Your task to perform on an android device: Open Amazon Image 0: 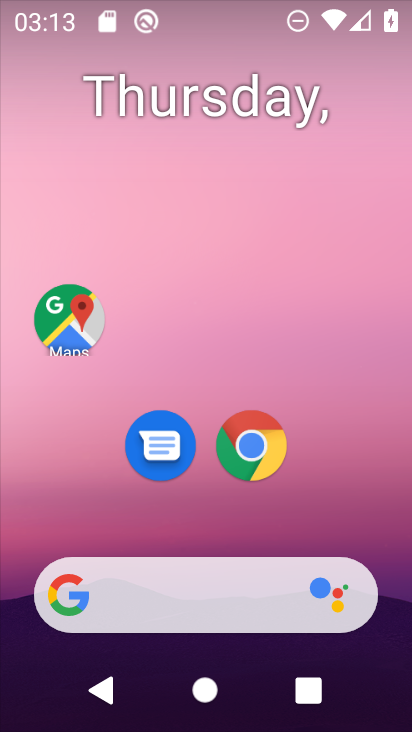
Step 0: click (256, 449)
Your task to perform on an android device: Open Amazon Image 1: 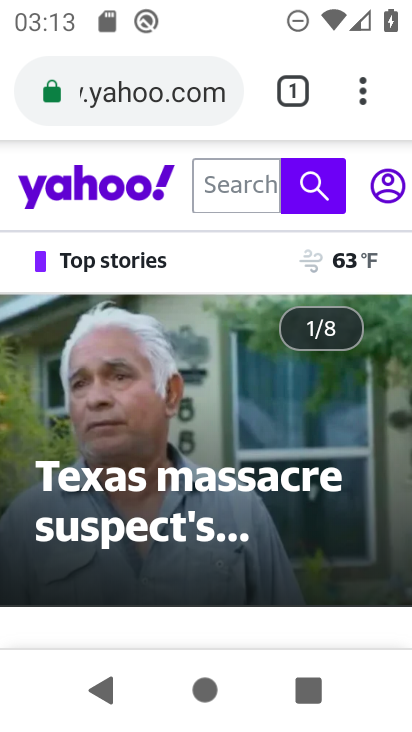
Step 1: click (129, 93)
Your task to perform on an android device: Open Amazon Image 2: 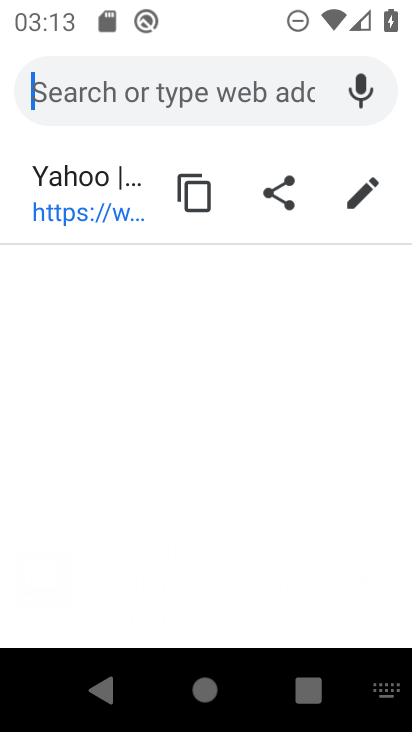
Step 2: type "amazon"
Your task to perform on an android device: Open Amazon Image 3: 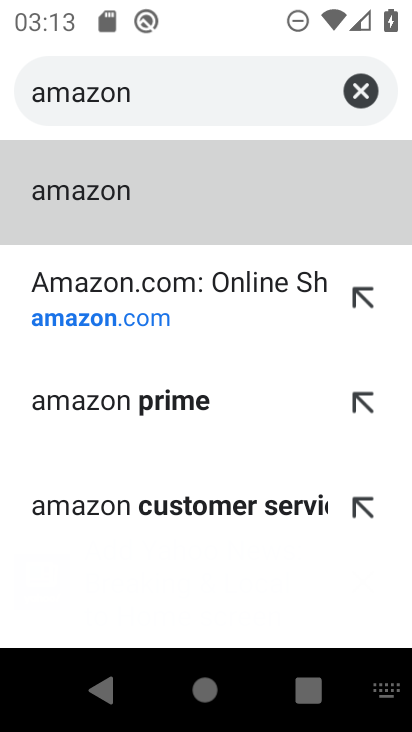
Step 3: click (107, 198)
Your task to perform on an android device: Open Amazon Image 4: 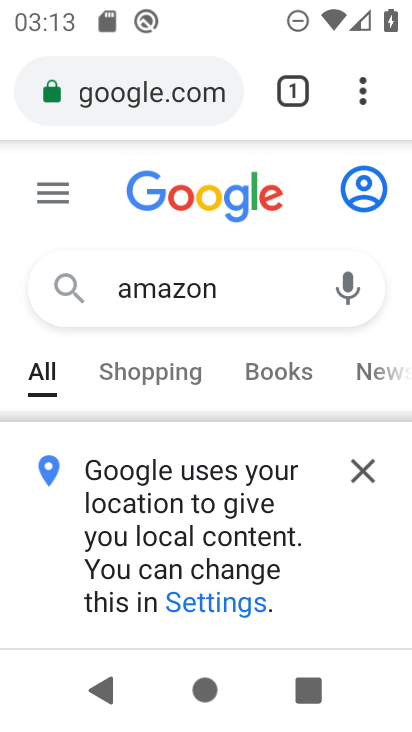
Step 4: click (356, 467)
Your task to perform on an android device: Open Amazon Image 5: 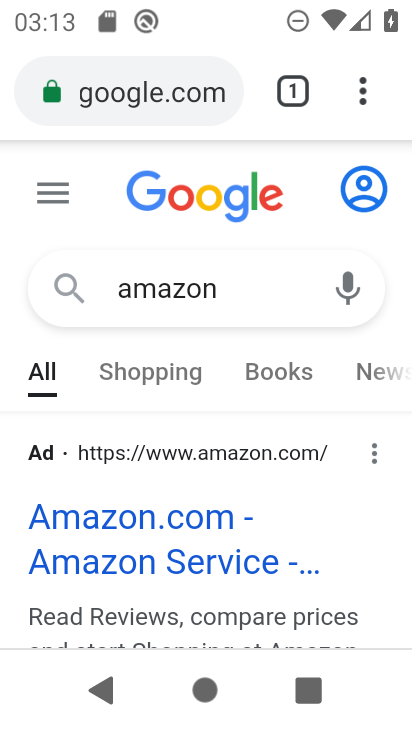
Step 5: drag from (146, 497) to (149, 271)
Your task to perform on an android device: Open Amazon Image 6: 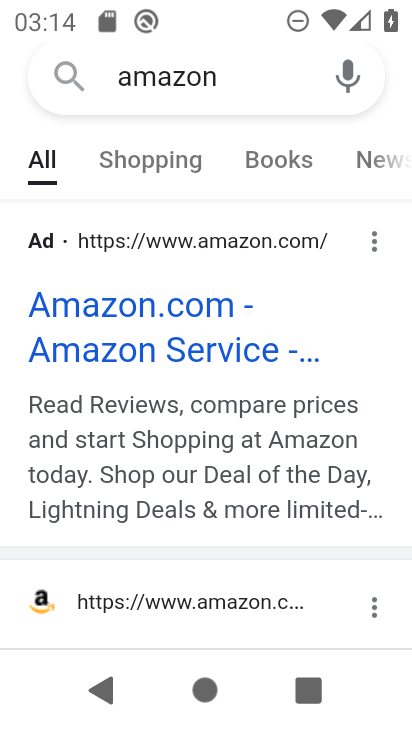
Step 6: click (134, 249)
Your task to perform on an android device: Open Amazon Image 7: 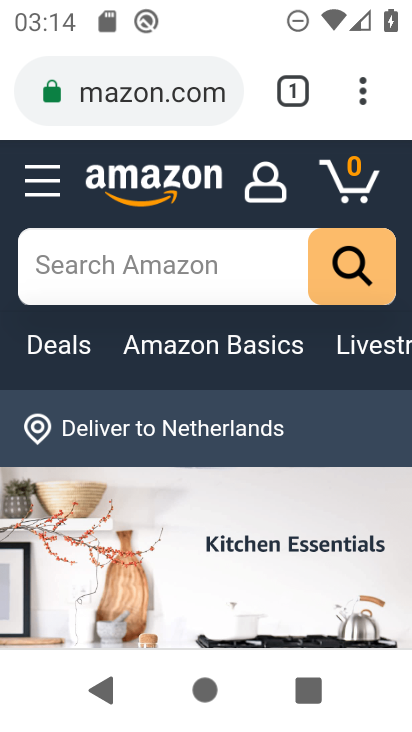
Step 7: task complete